Your task to perform on an android device: Turn off the flashlight Image 0: 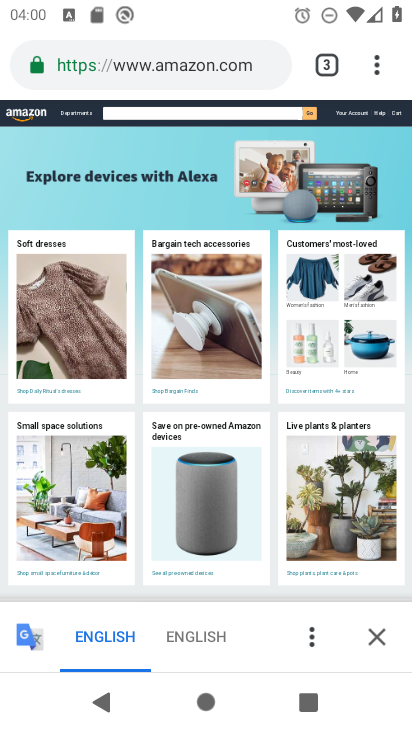
Step 0: press home button
Your task to perform on an android device: Turn off the flashlight Image 1: 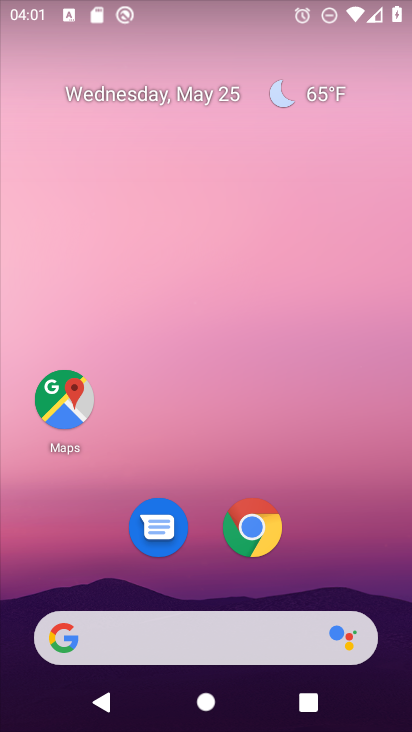
Step 1: drag from (349, 622) to (323, 158)
Your task to perform on an android device: Turn off the flashlight Image 2: 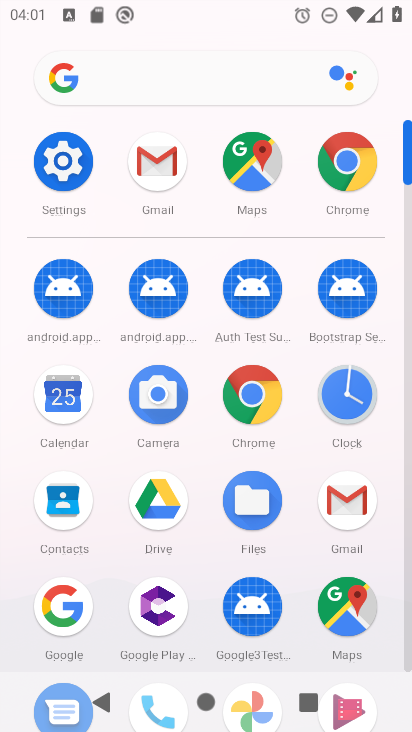
Step 2: click (77, 153)
Your task to perform on an android device: Turn off the flashlight Image 3: 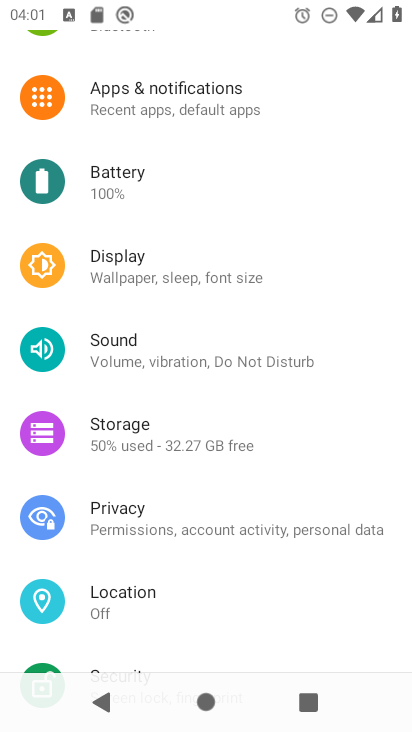
Step 3: drag from (244, 218) to (361, 522)
Your task to perform on an android device: Turn off the flashlight Image 4: 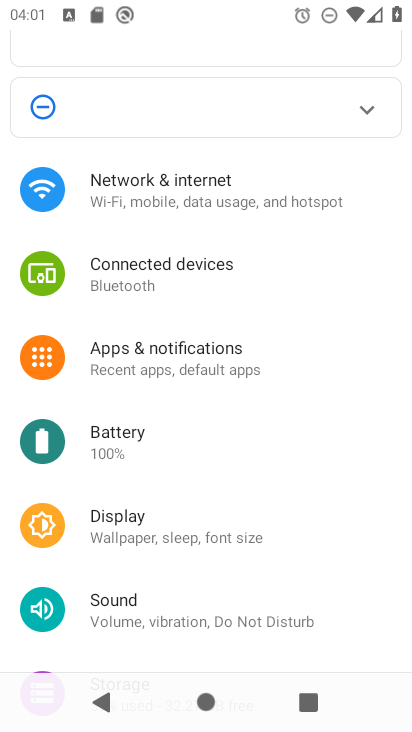
Step 4: click (160, 353)
Your task to perform on an android device: Turn off the flashlight Image 5: 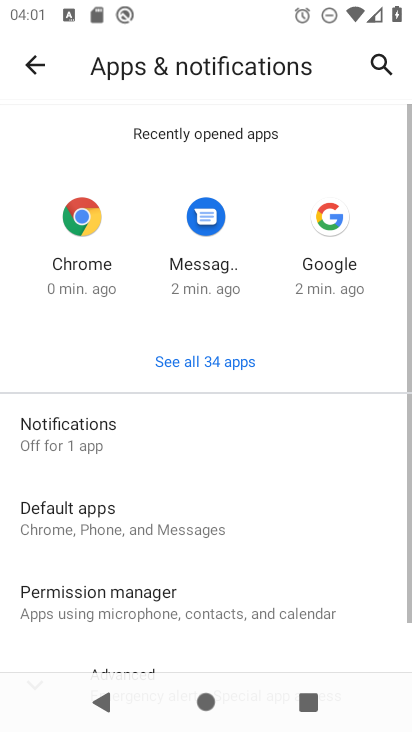
Step 5: task complete